Your task to perform on an android device: install app "PUBG MOBILE" Image 0: 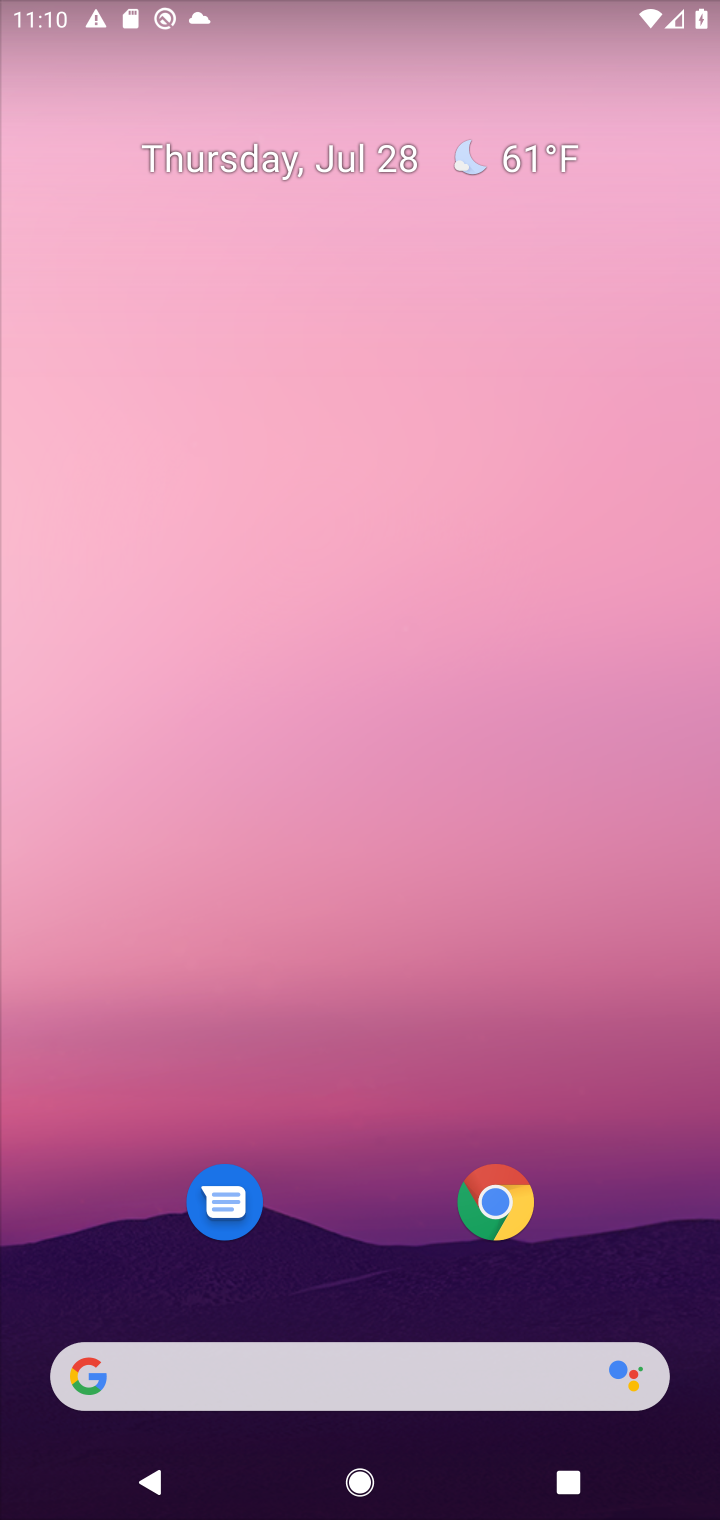
Step 0: task impossible